Your task to perform on an android device: Go to wifi settings Image 0: 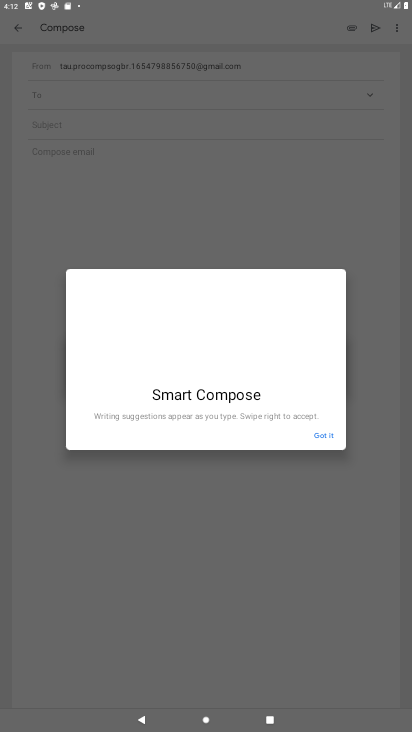
Step 0: press home button
Your task to perform on an android device: Go to wifi settings Image 1: 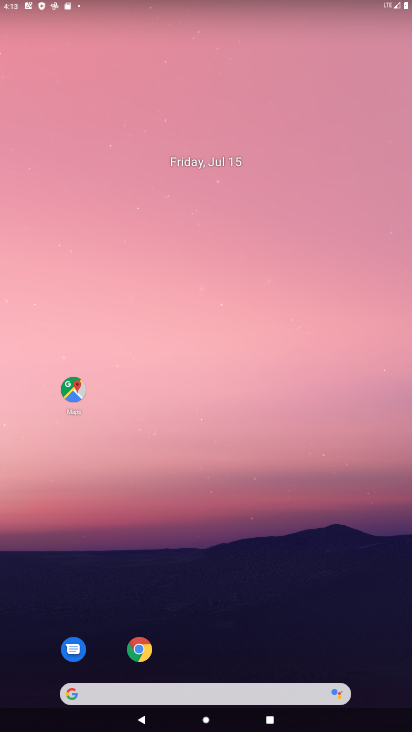
Step 1: drag from (314, 613) to (278, 65)
Your task to perform on an android device: Go to wifi settings Image 2: 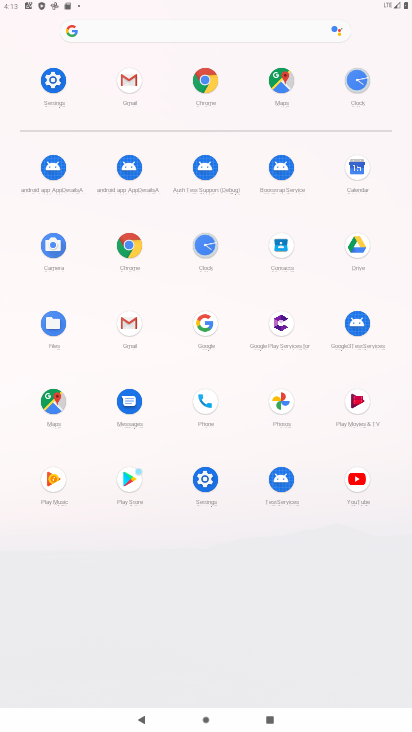
Step 2: click (53, 77)
Your task to perform on an android device: Go to wifi settings Image 3: 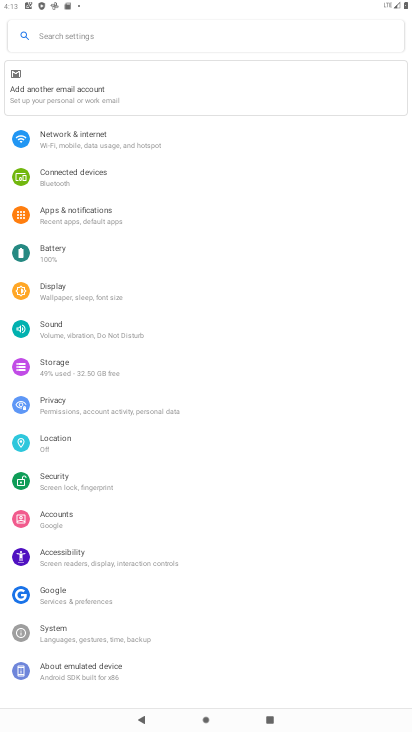
Step 3: click (102, 143)
Your task to perform on an android device: Go to wifi settings Image 4: 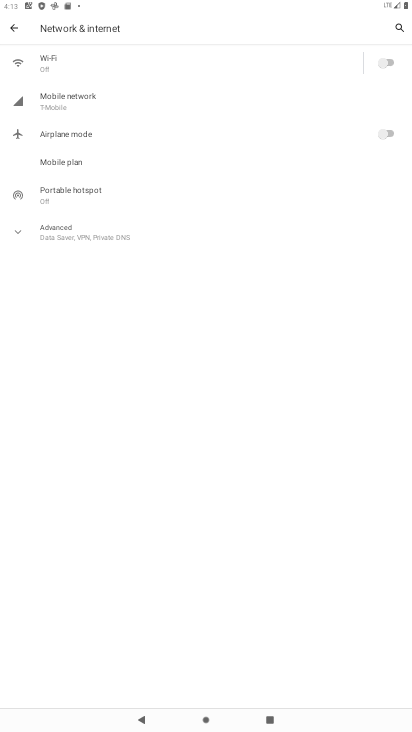
Step 4: click (77, 65)
Your task to perform on an android device: Go to wifi settings Image 5: 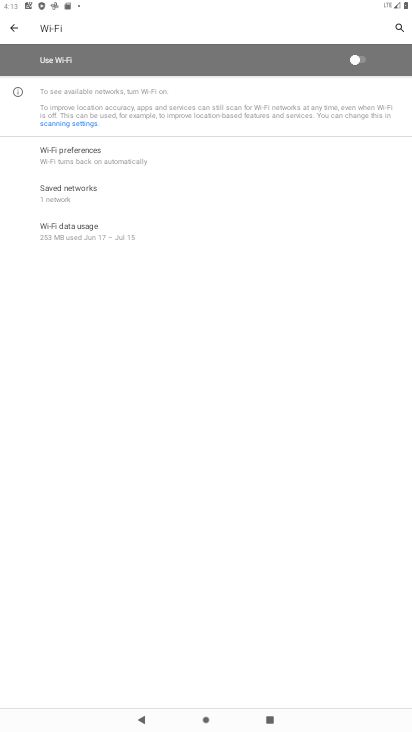
Step 5: click (350, 56)
Your task to perform on an android device: Go to wifi settings Image 6: 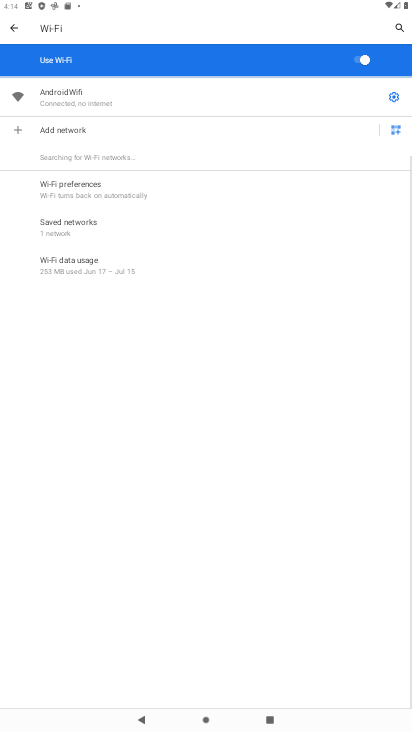
Step 6: click (394, 95)
Your task to perform on an android device: Go to wifi settings Image 7: 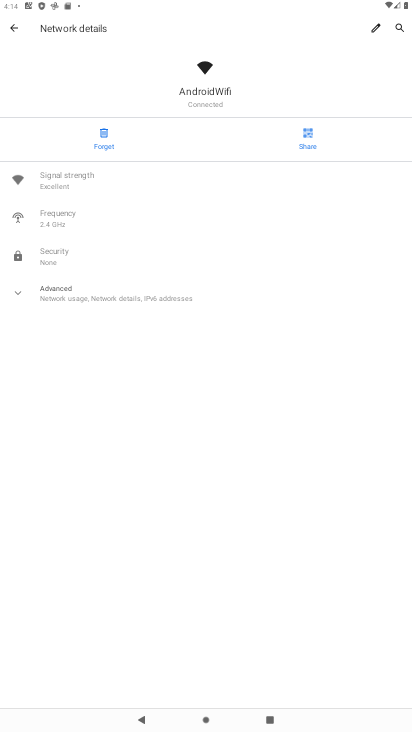
Step 7: task complete